Your task to perform on an android device: change timer sound Image 0: 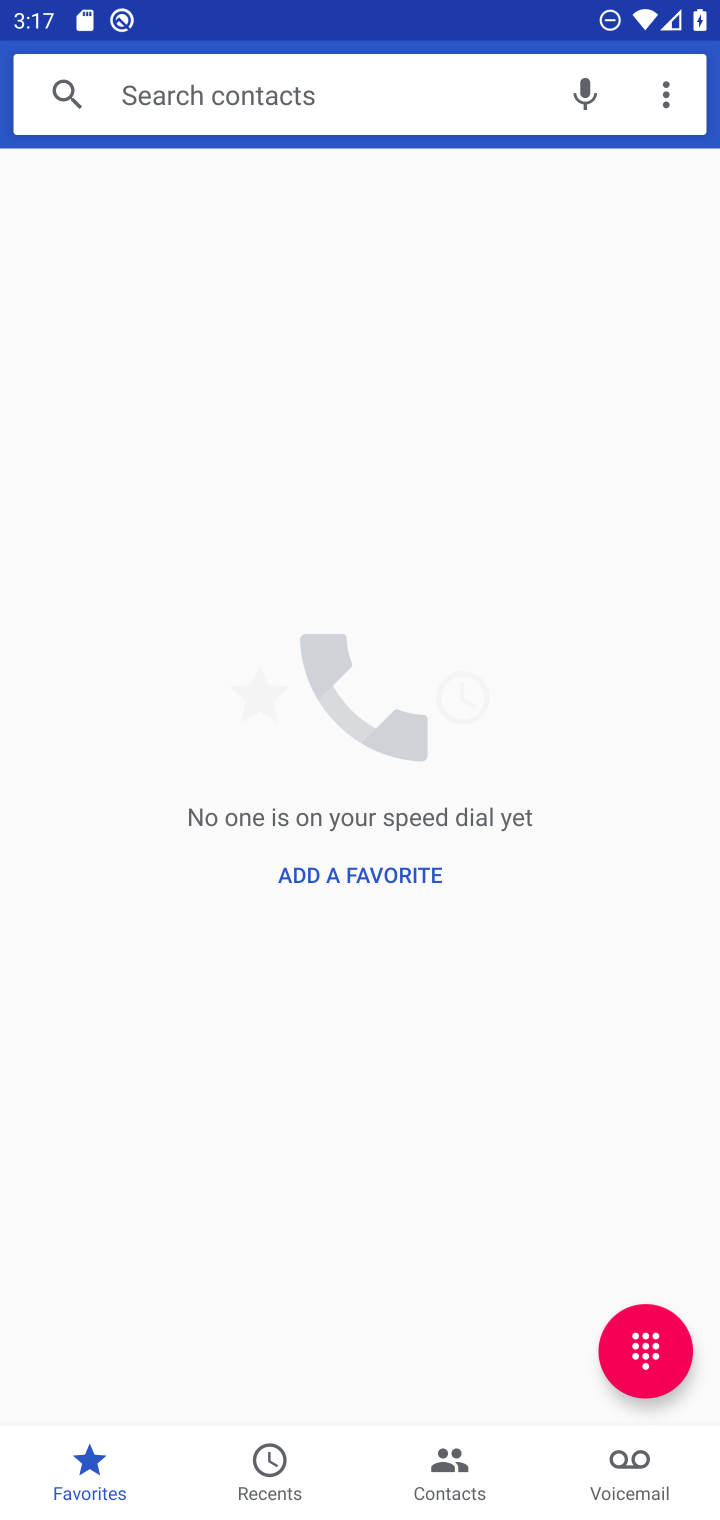
Step 0: press home button
Your task to perform on an android device: change timer sound Image 1: 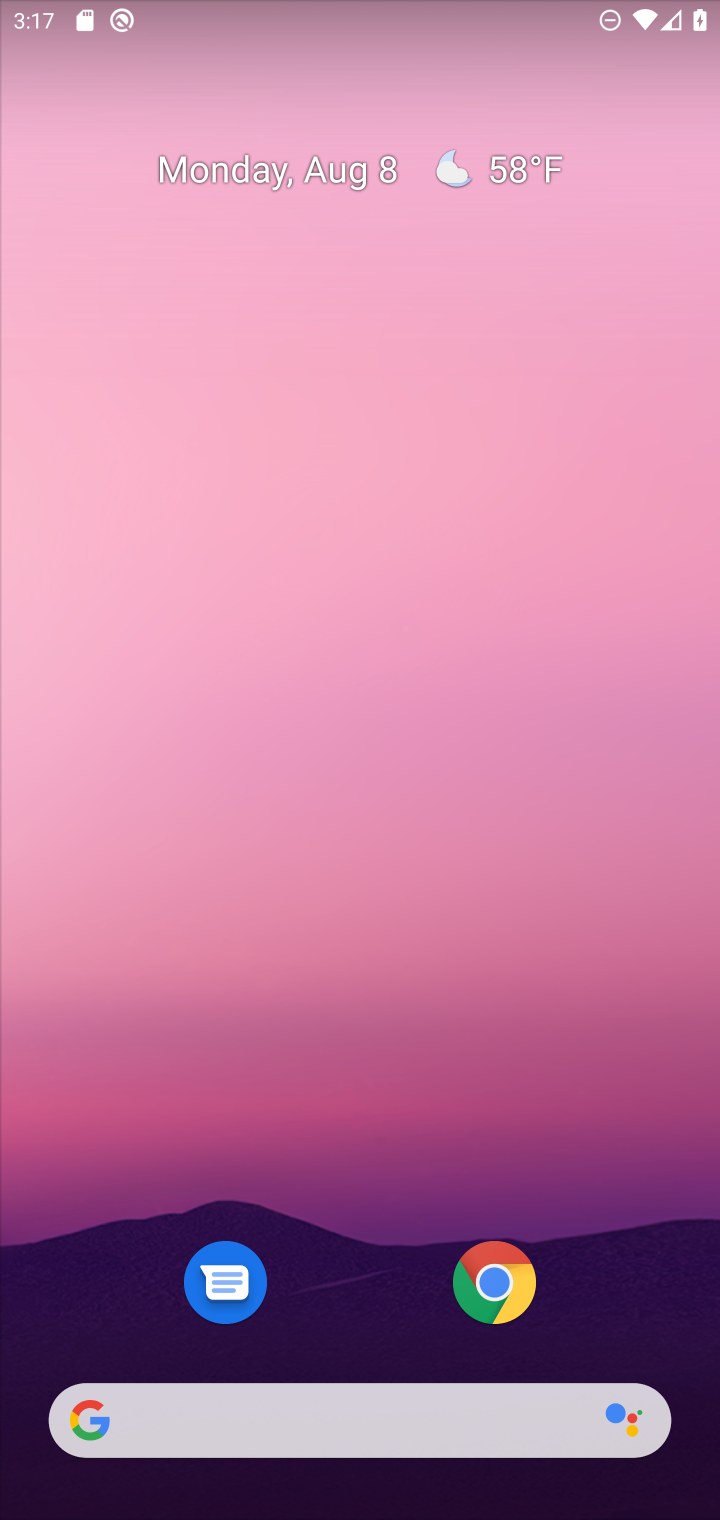
Step 1: drag from (345, 1169) to (541, 115)
Your task to perform on an android device: change timer sound Image 2: 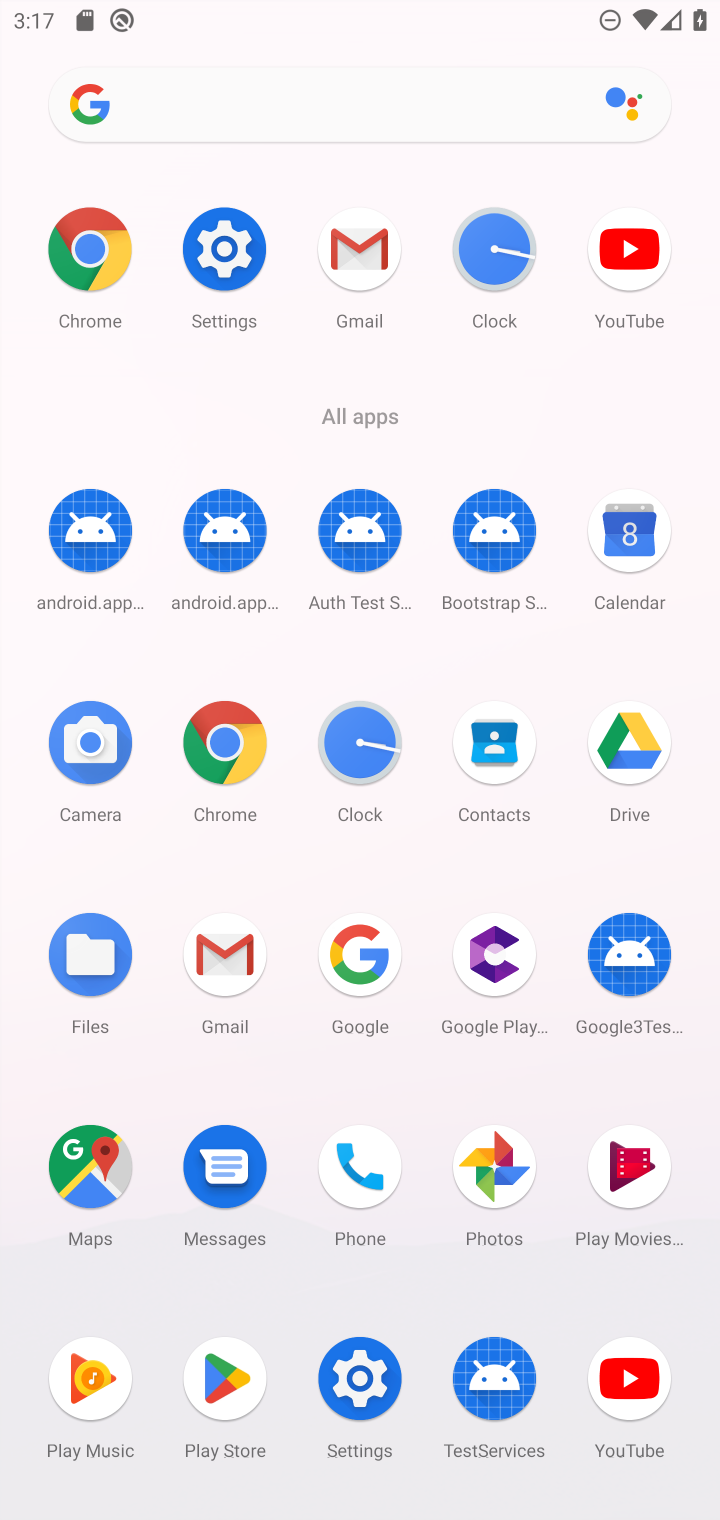
Step 2: click (347, 1365)
Your task to perform on an android device: change timer sound Image 3: 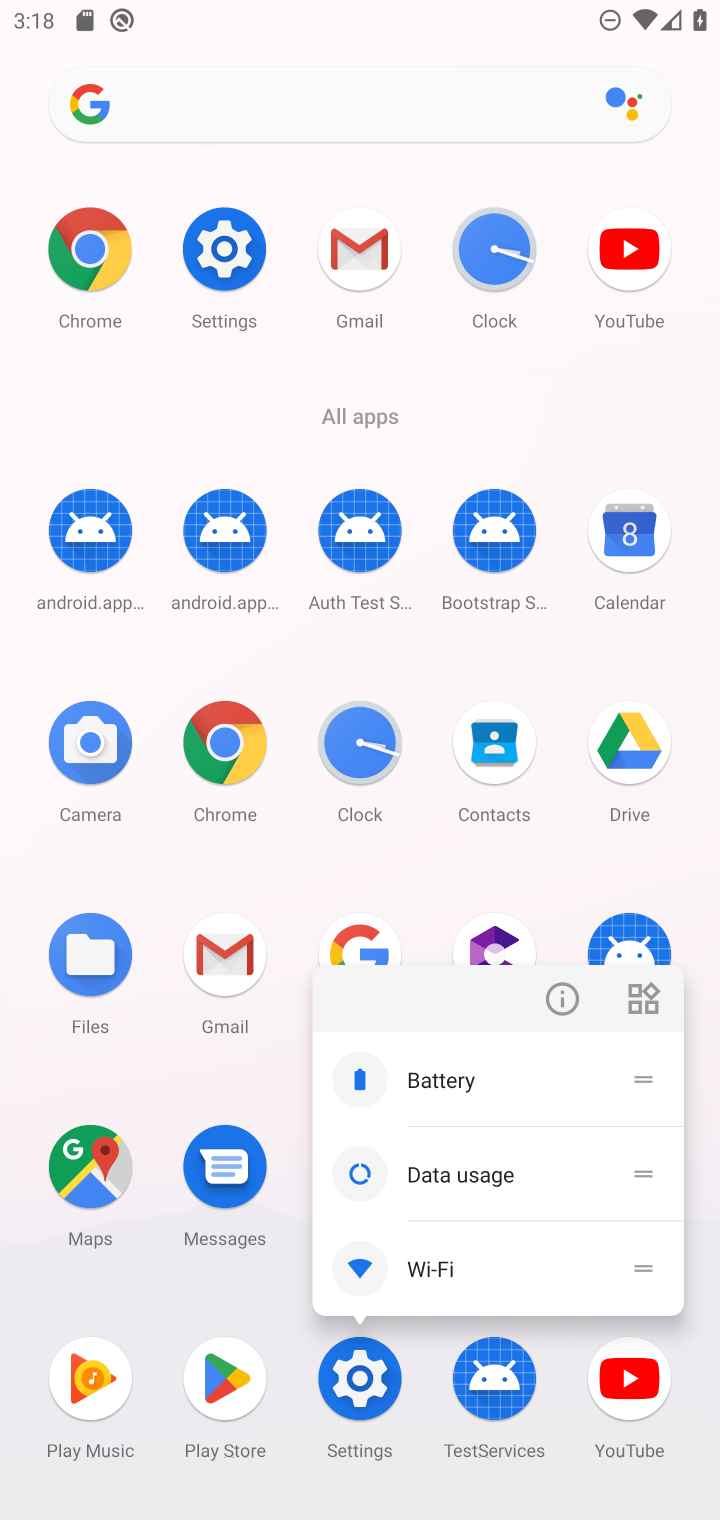
Step 3: click (373, 738)
Your task to perform on an android device: change timer sound Image 4: 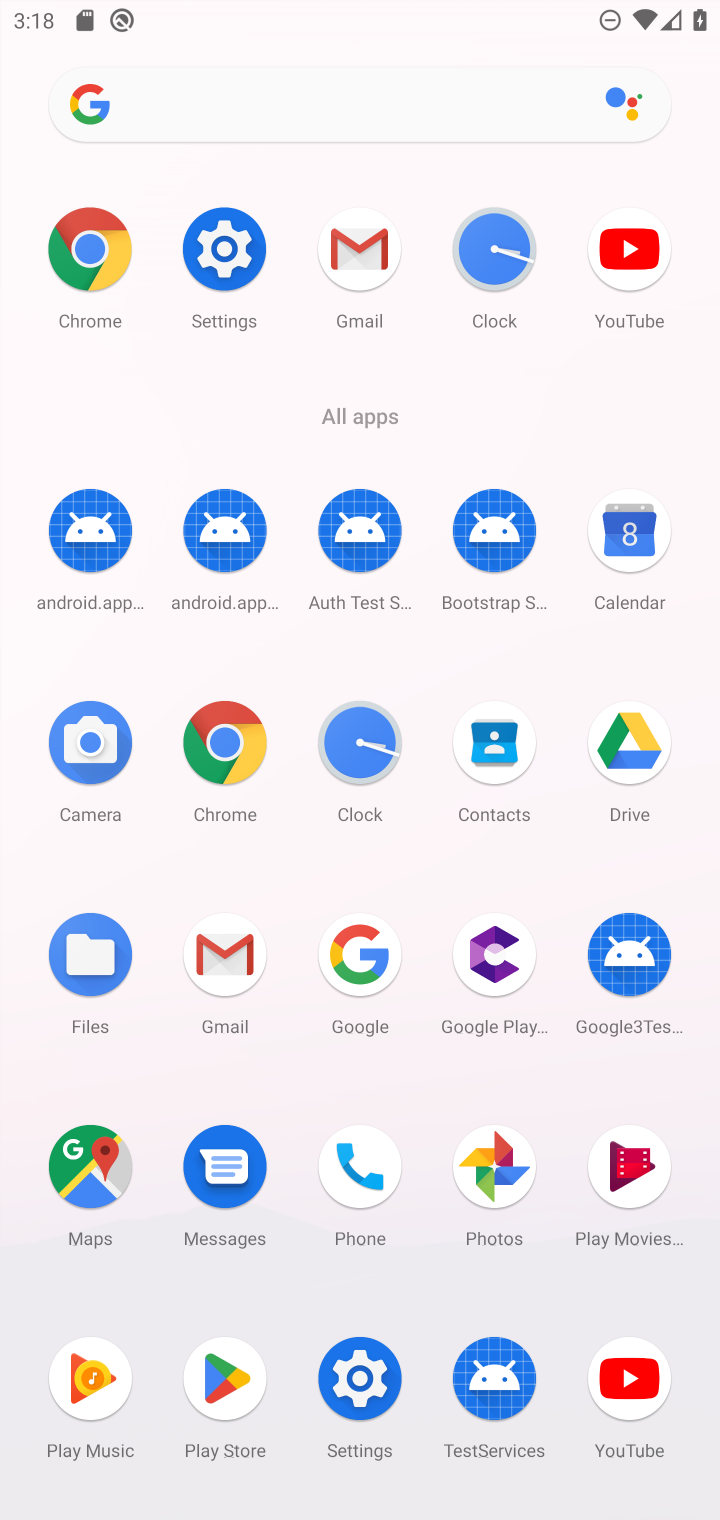
Step 4: click (369, 742)
Your task to perform on an android device: change timer sound Image 5: 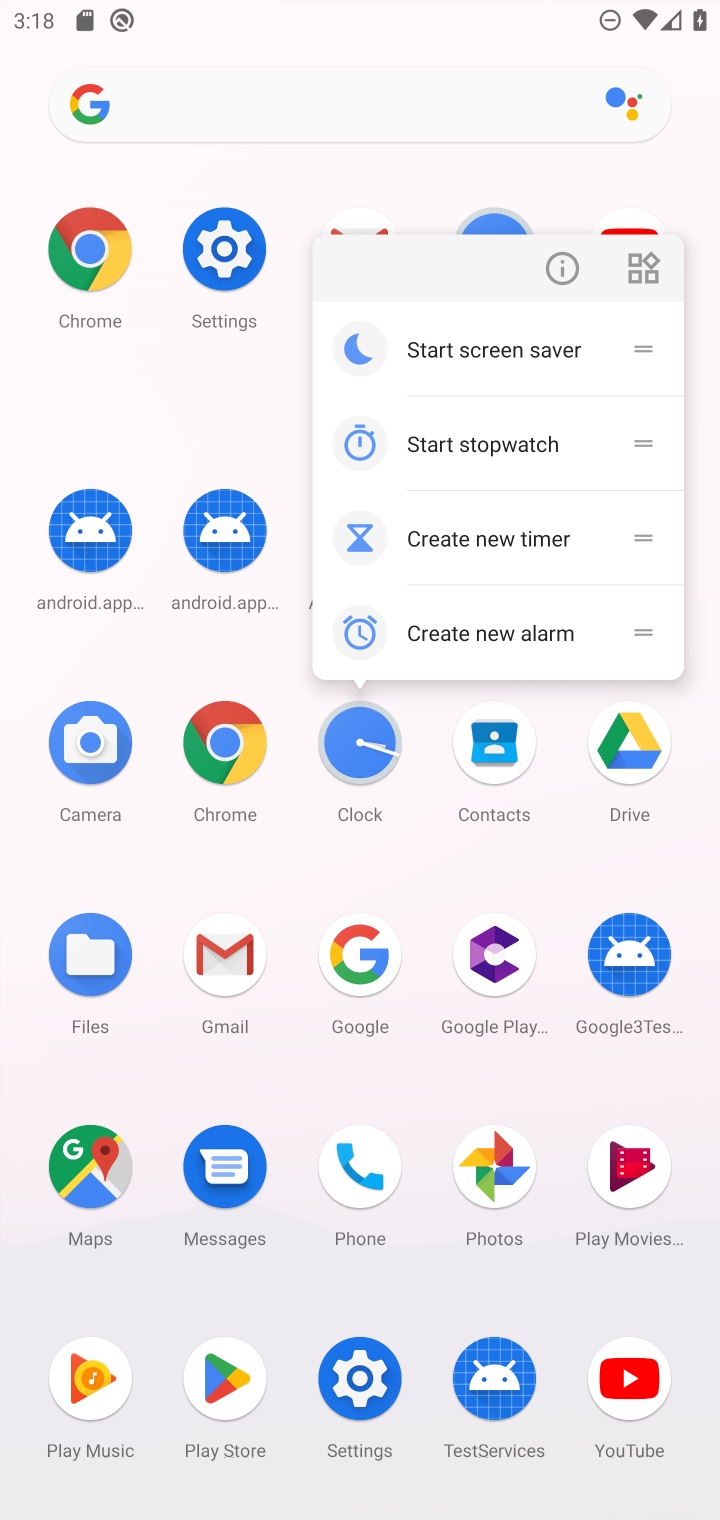
Step 5: click (367, 742)
Your task to perform on an android device: change timer sound Image 6: 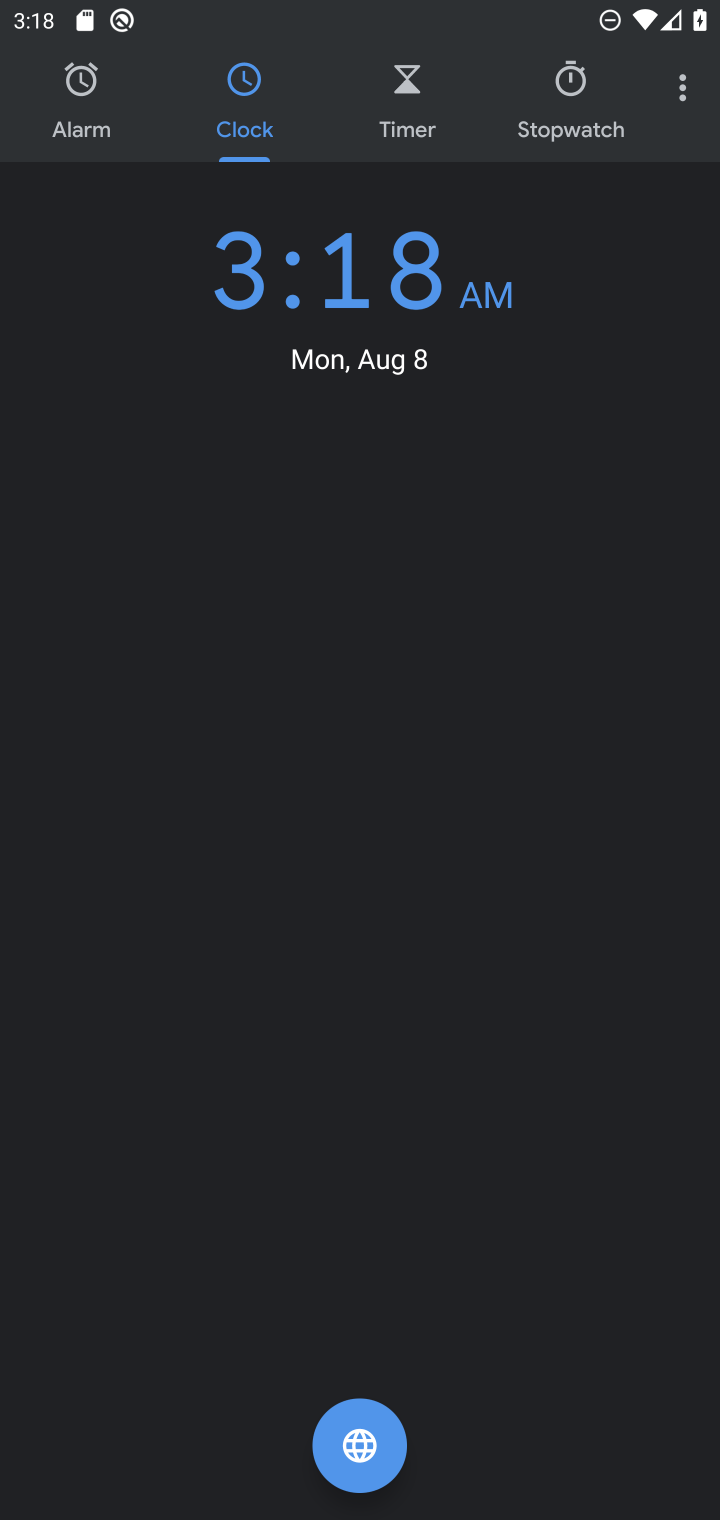
Step 6: click (667, 76)
Your task to perform on an android device: change timer sound Image 7: 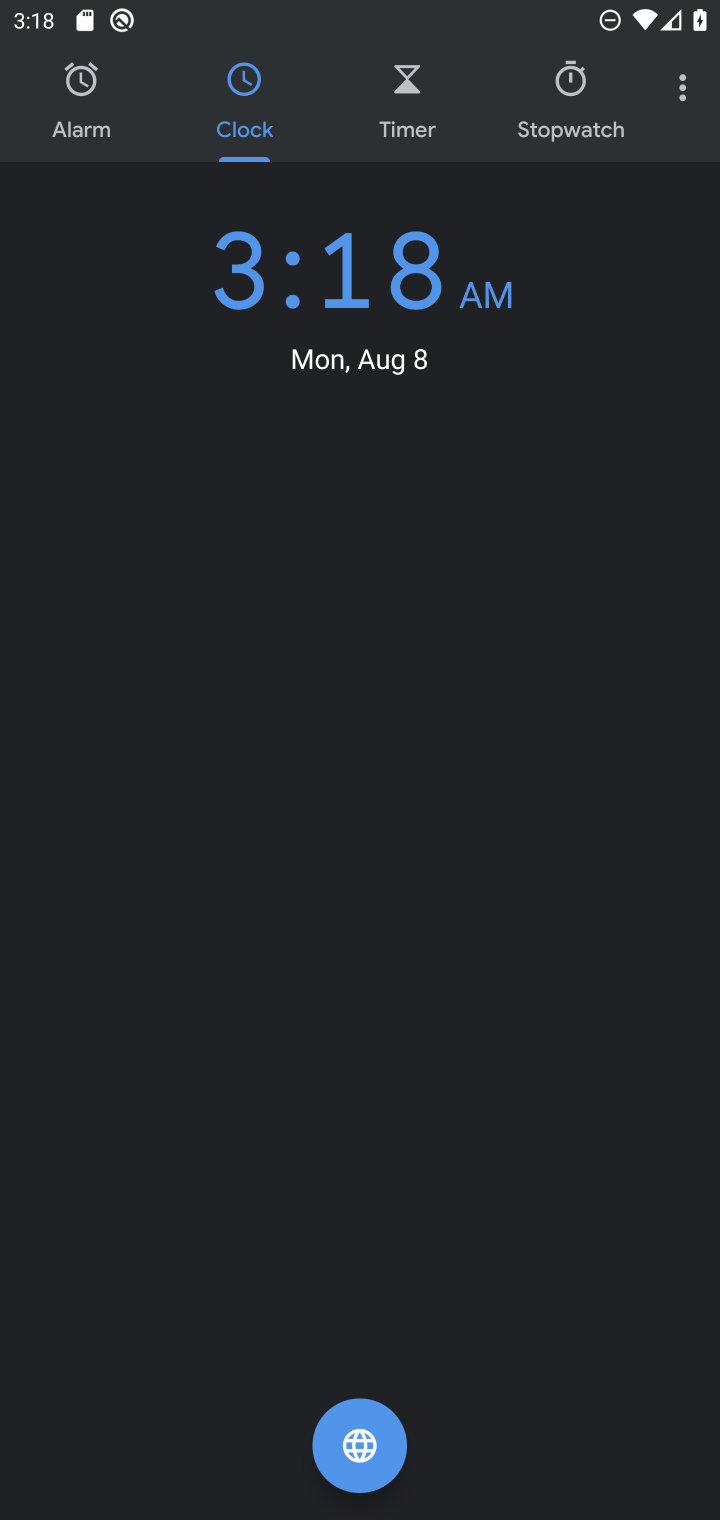
Step 7: click (670, 89)
Your task to perform on an android device: change timer sound Image 8: 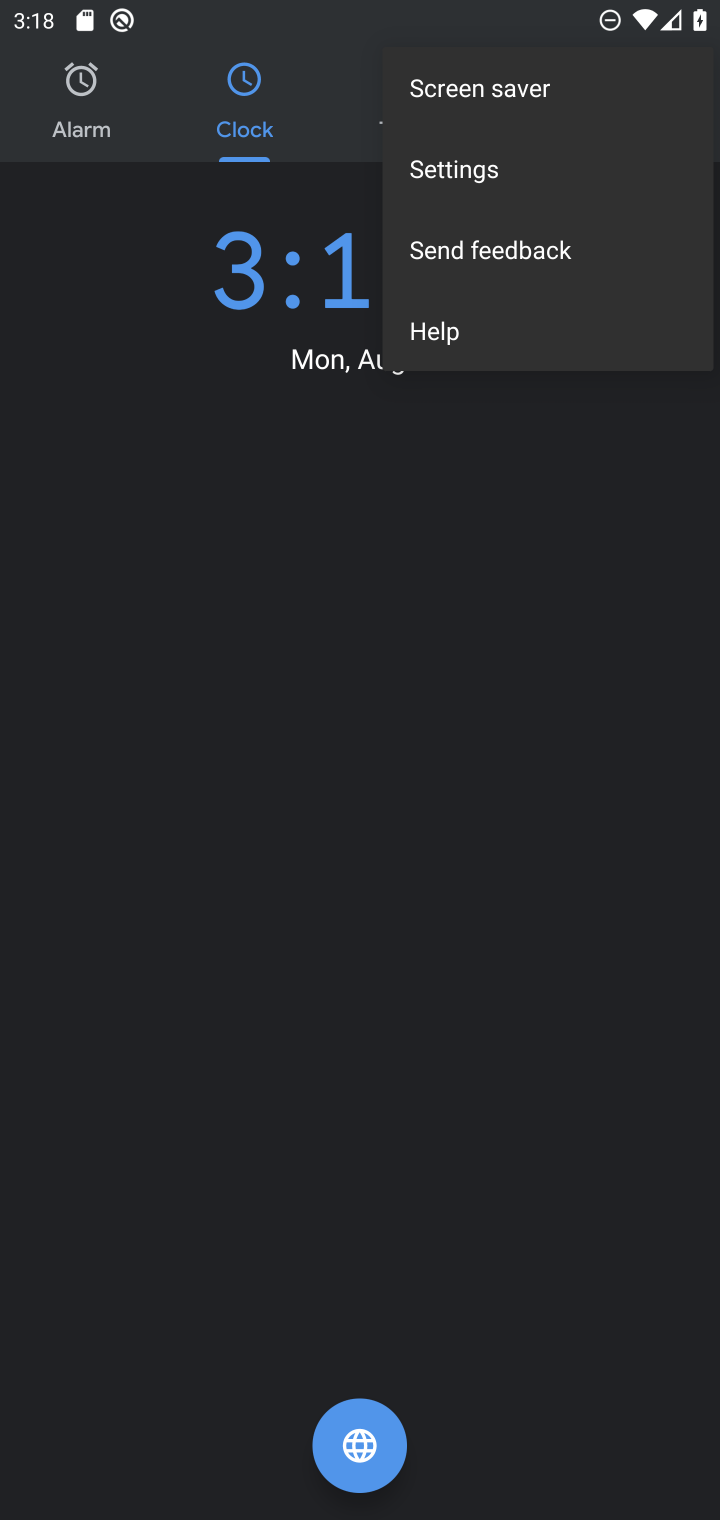
Step 8: click (473, 166)
Your task to perform on an android device: change timer sound Image 9: 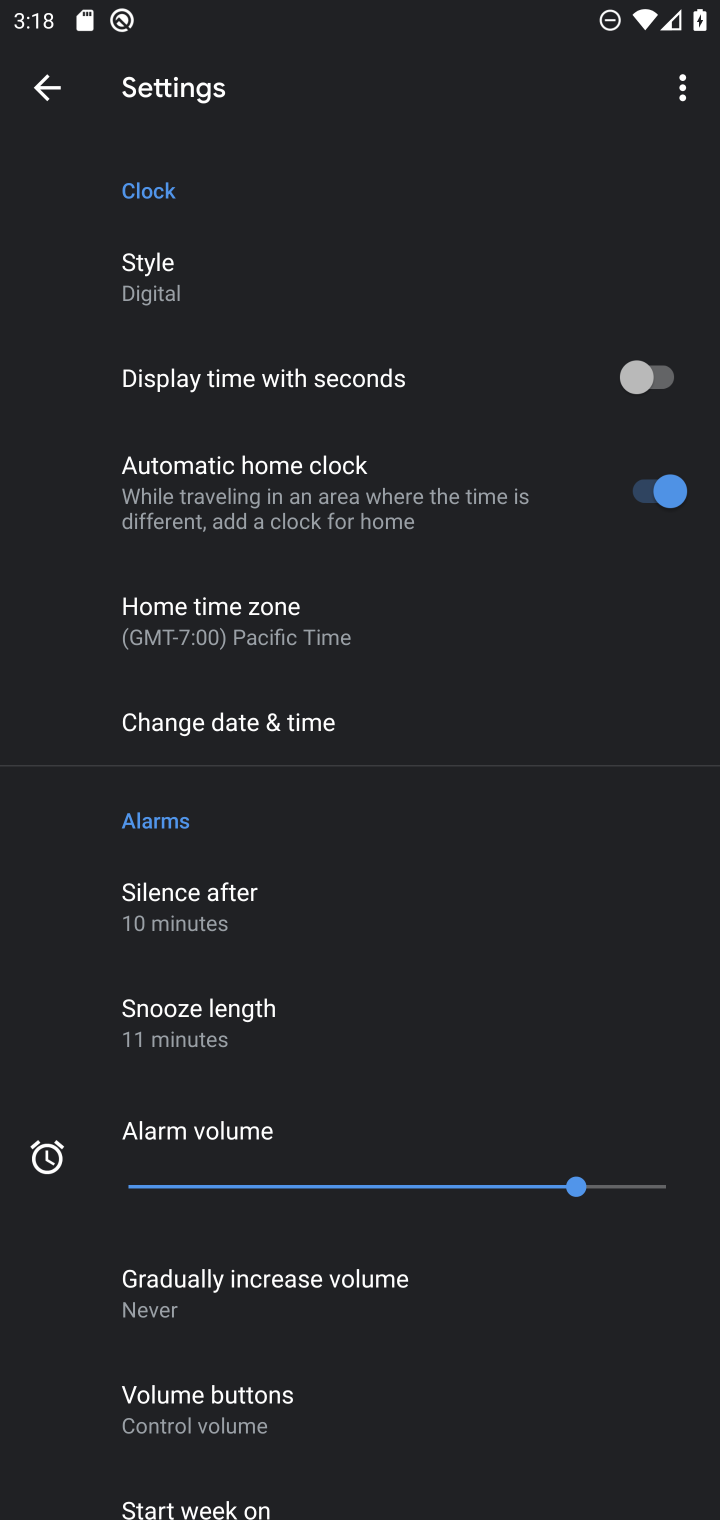
Step 9: drag from (475, 1447) to (495, 340)
Your task to perform on an android device: change timer sound Image 10: 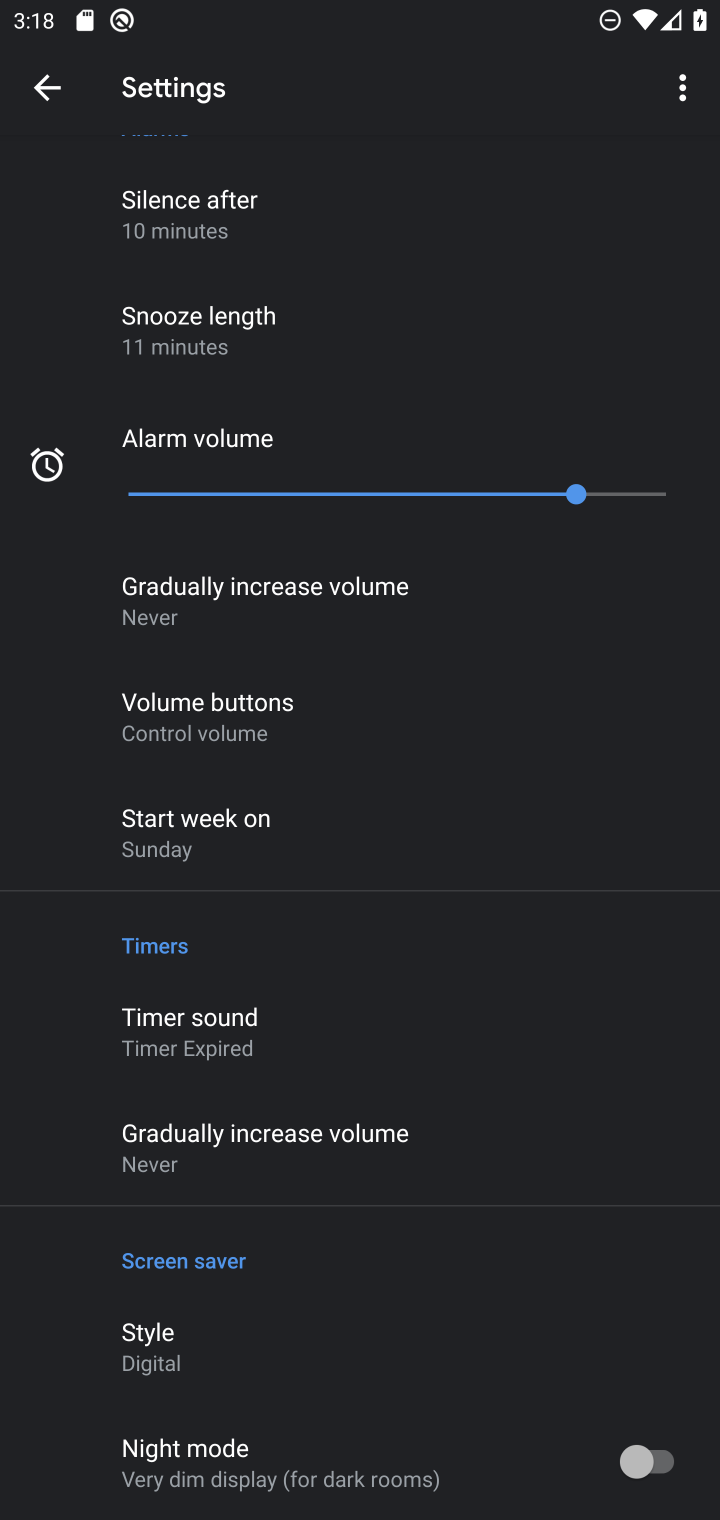
Step 10: click (233, 1050)
Your task to perform on an android device: change timer sound Image 11: 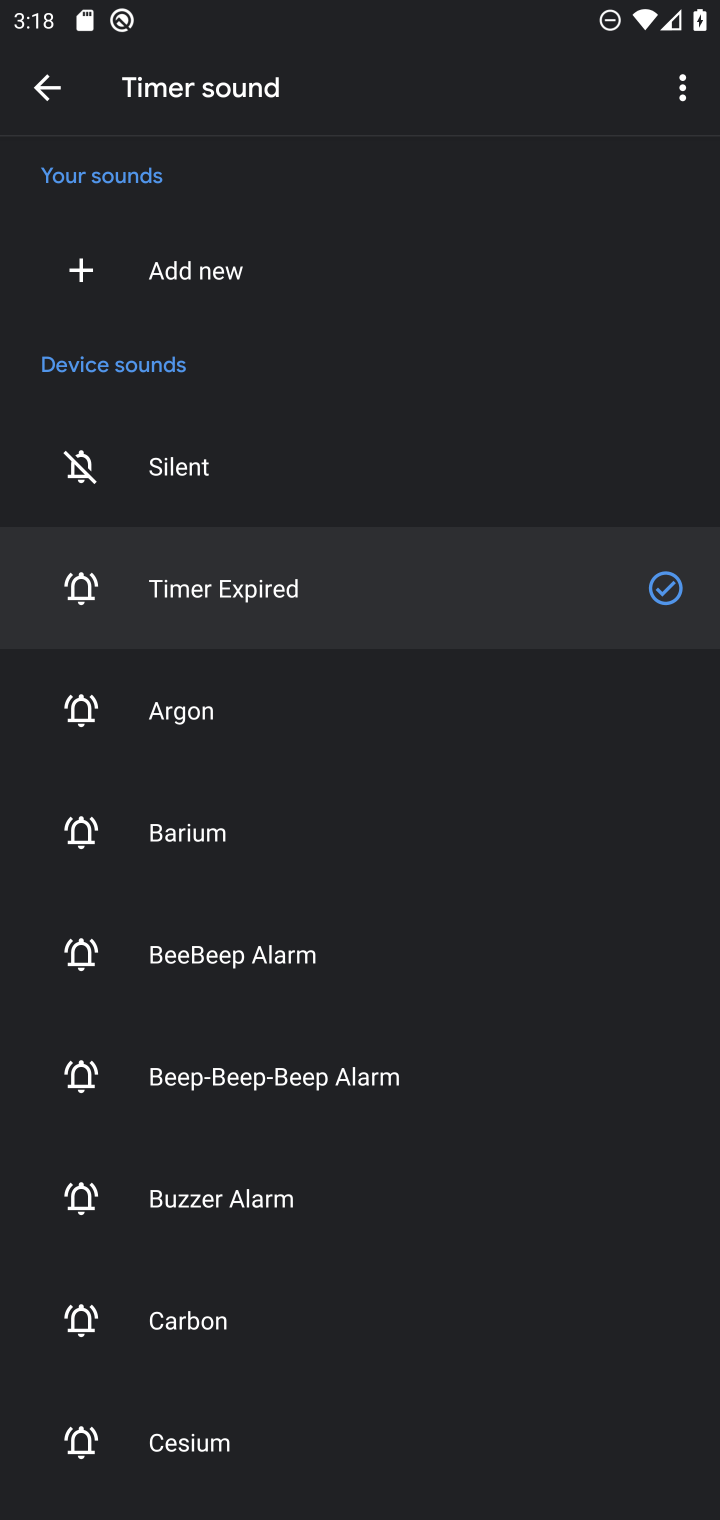
Step 11: click (245, 732)
Your task to perform on an android device: change timer sound Image 12: 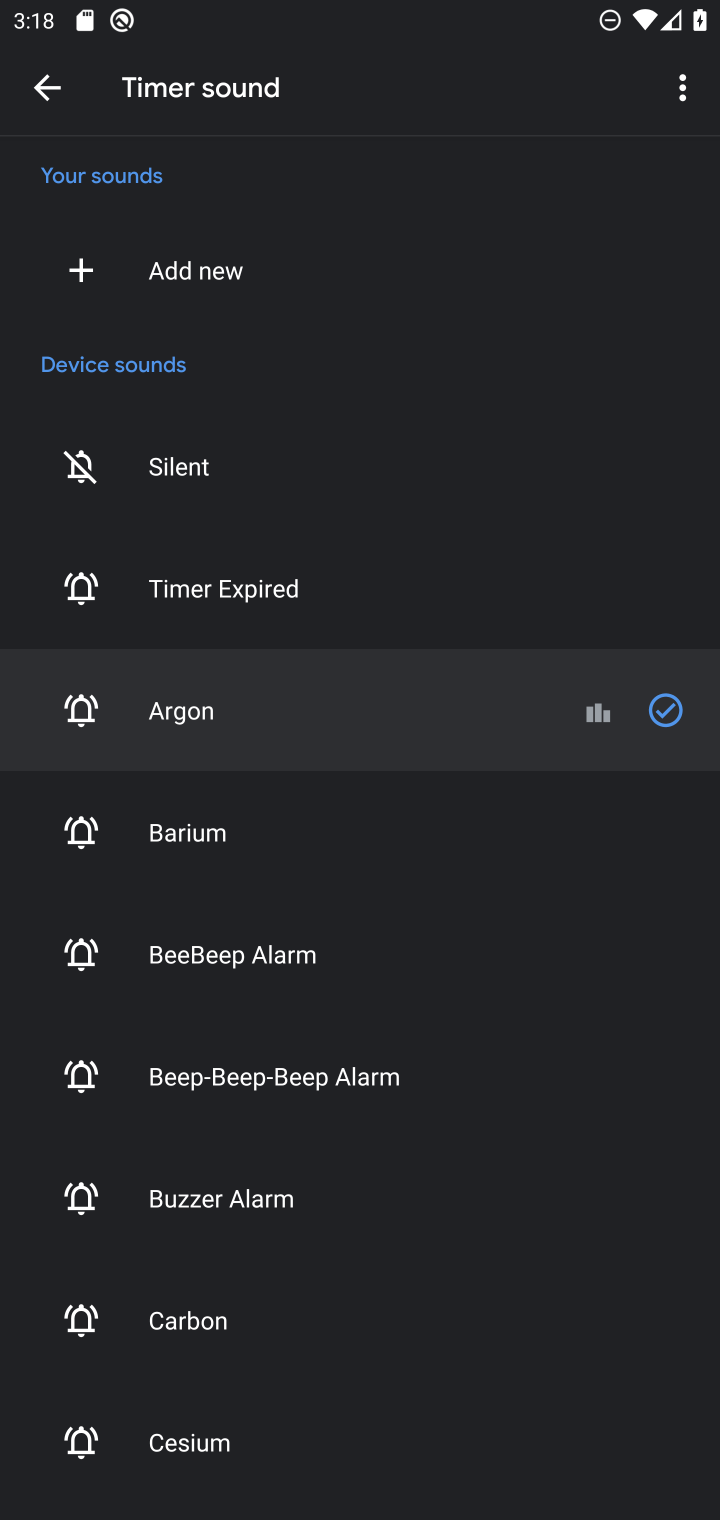
Step 12: task complete